Your task to perform on an android device: open device folders in google photos Image 0: 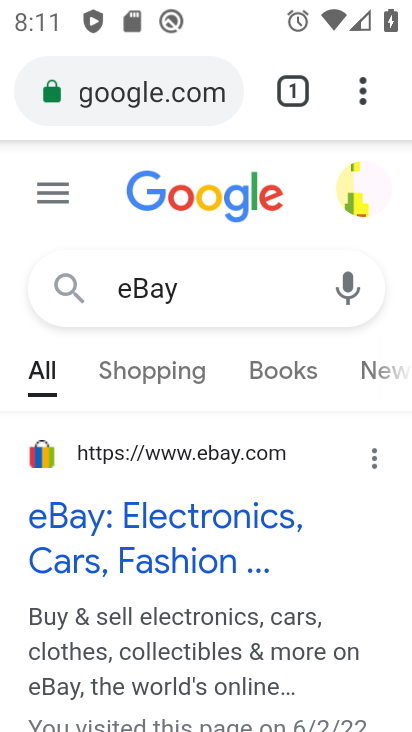
Step 0: press home button
Your task to perform on an android device: open device folders in google photos Image 1: 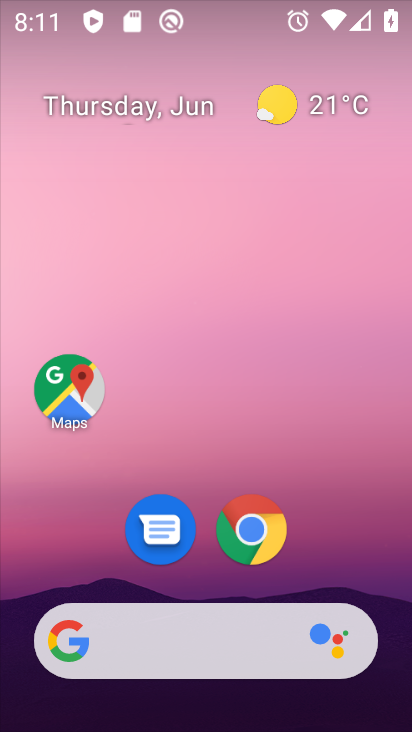
Step 1: drag from (385, 667) to (338, 197)
Your task to perform on an android device: open device folders in google photos Image 2: 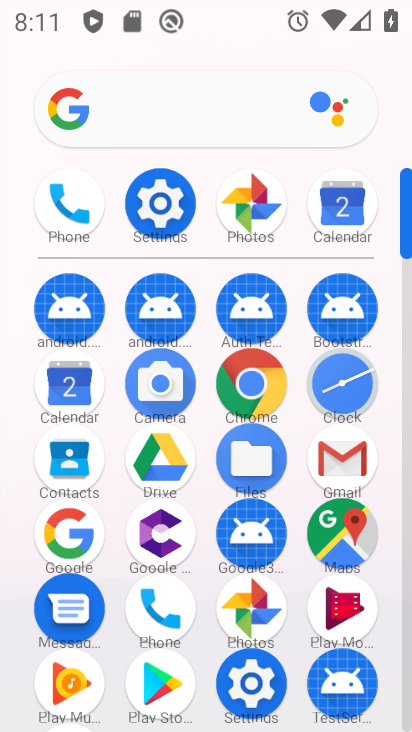
Step 2: click (261, 196)
Your task to perform on an android device: open device folders in google photos Image 3: 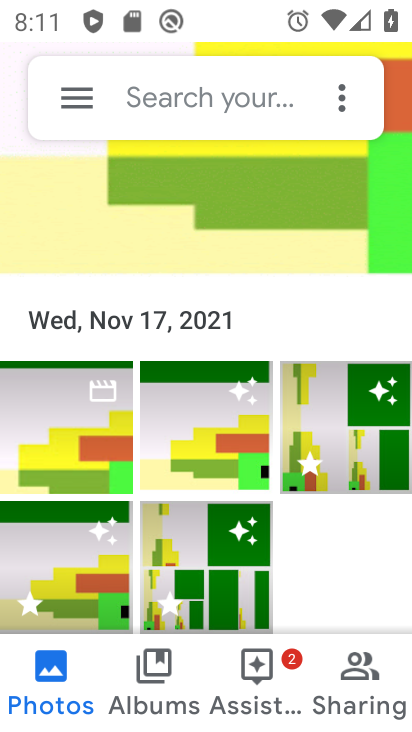
Step 3: click (78, 99)
Your task to perform on an android device: open device folders in google photos Image 4: 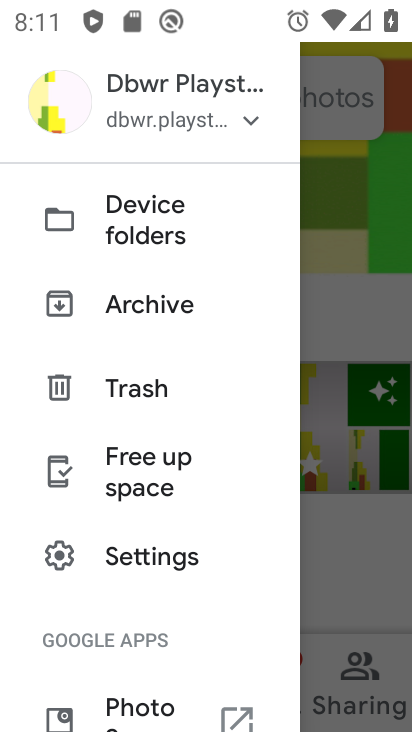
Step 4: click (146, 230)
Your task to perform on an android device: open device folders in google photos Image 5: 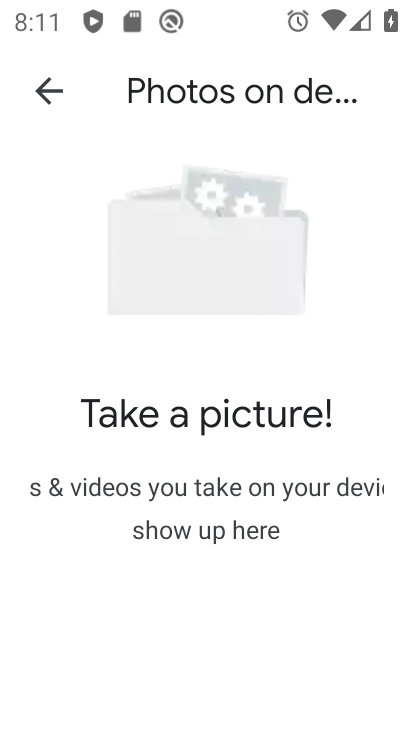
Step 5: task complete